Your task to perform on an android device: set an alarm Image 0: 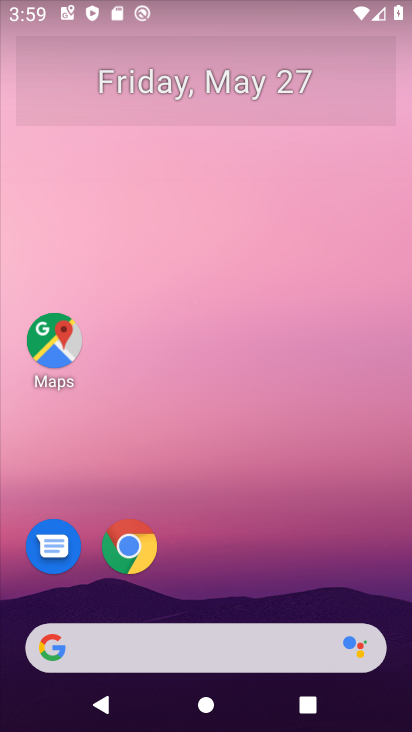
Step 0: press home button
Your task to perform on an android device: set an alarm Image 1: 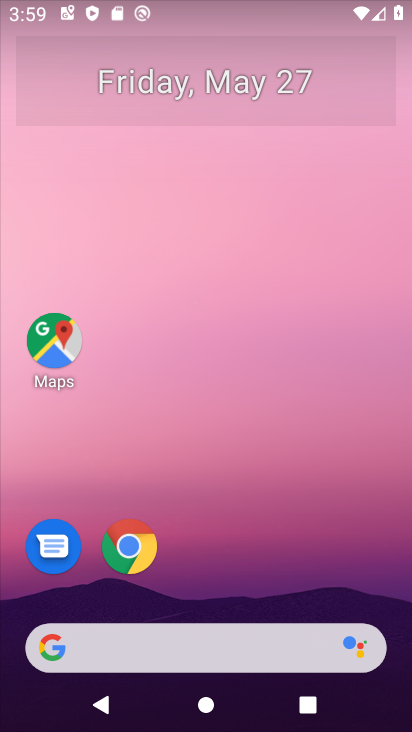
Step 1: drag from (228, 599) to (243, 232)
Your task to perform on an android device: set an alarm Image 2: 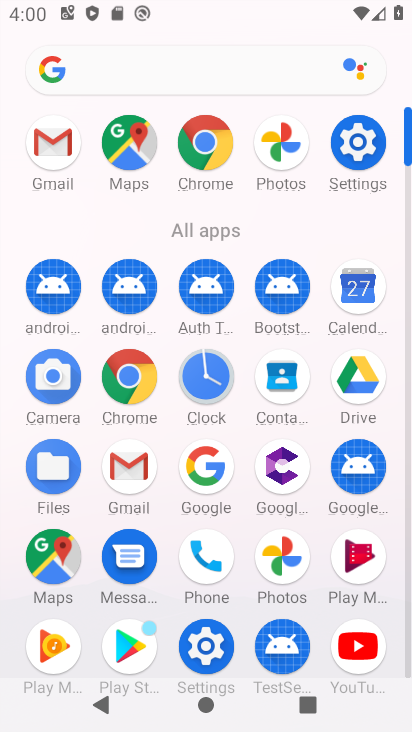
Step 2: click (206, 368)
Your task to perform on an android device: set an alarm Image 3: 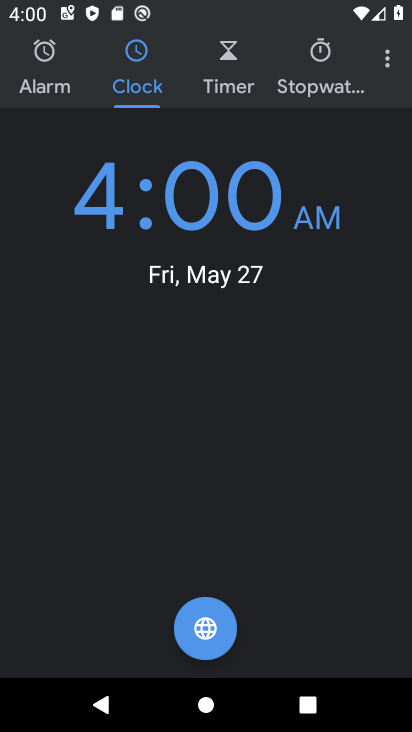
Step 3: click (36, 46)
Your task to perform on an android device: set an alarm Image 4: 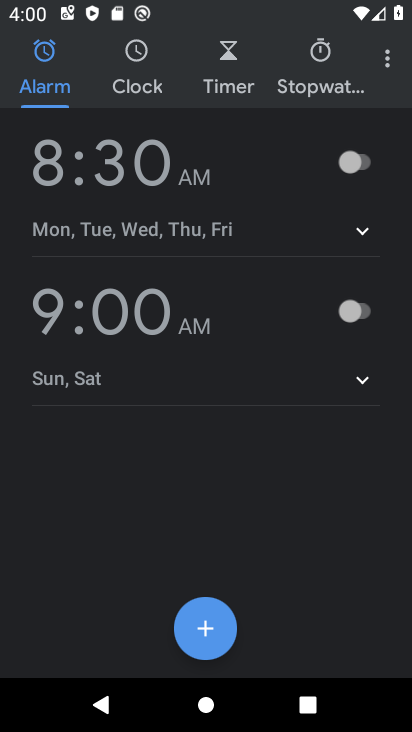
Step 4: click (114, 162)
Your task to perform on an android device: set an alarm Image 5: 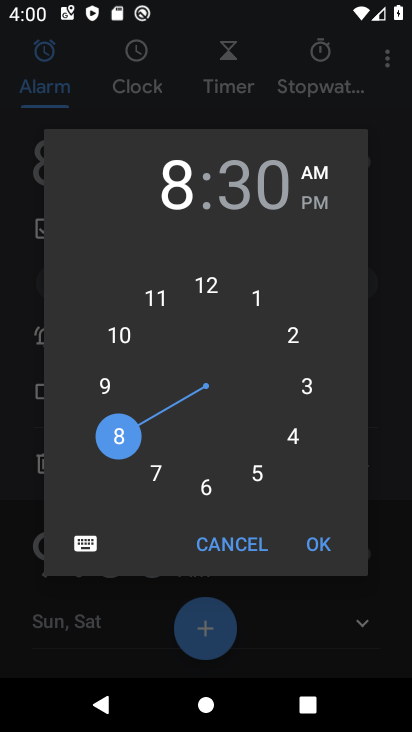
Step 5: click (302, 546)
Your task to perform on an android device: set an alarm Image 6: 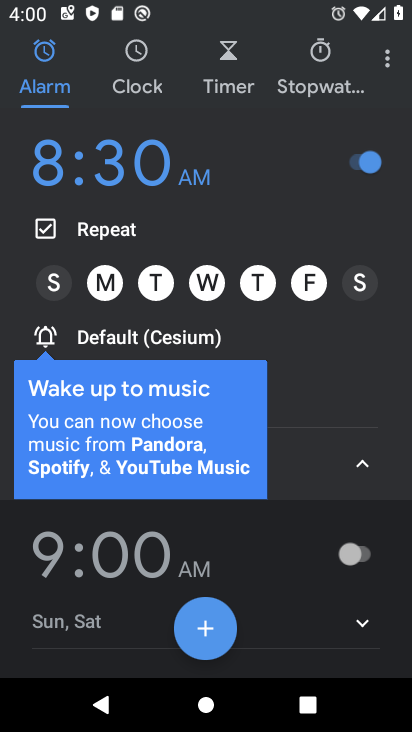
Step 6: task complete